Your task to perform on an android device: turn off priority inbox in the gmail app Image 0: 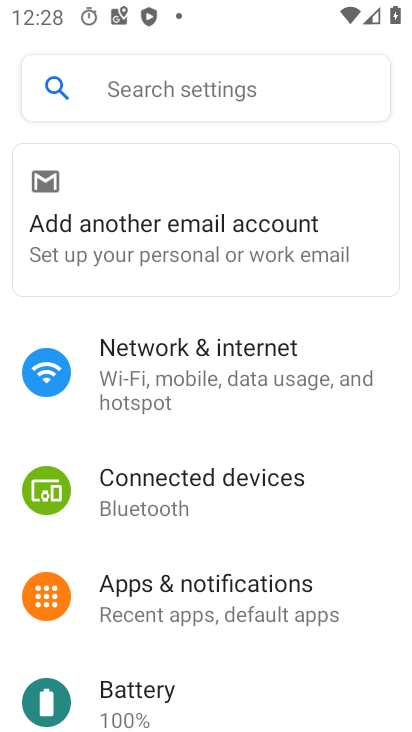
Step 0: press home button
Your task to perform on an android device: turn off priority inbox in the gmail app Image 1: 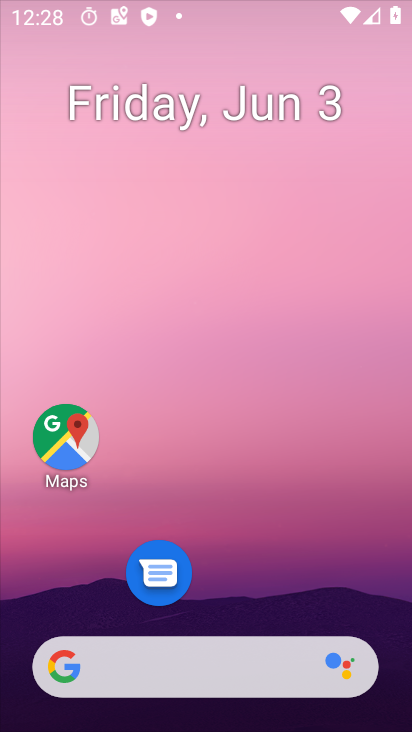
Step 1: drag from (295, 696) to (292, 93)
Your task to perform on an android device: turn off priority inbox in the gmail app Image 2: 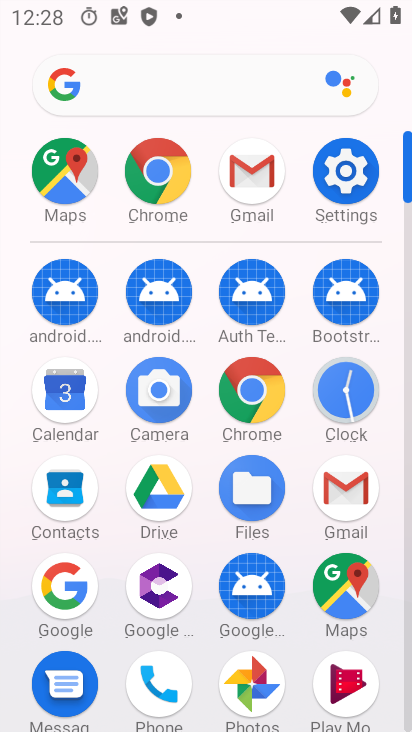
Step 2: click (369, 500)
Your task to perform on an android device: turn off priority inbox in the gmail app Image 3: 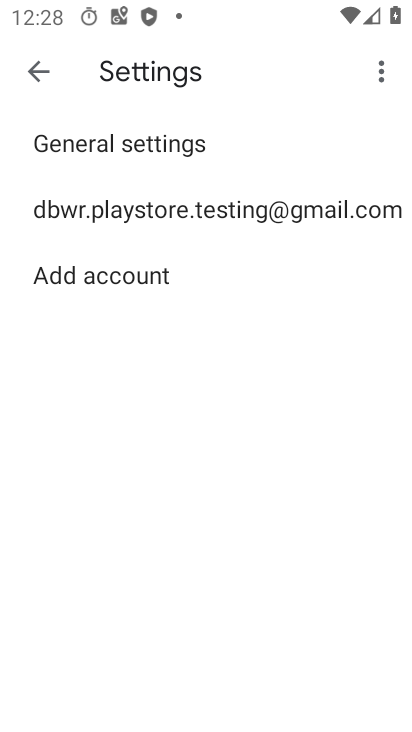
Step 3: press back button
Your task to perform on an android device: turn off priority inbox in the gmail app Image 4: 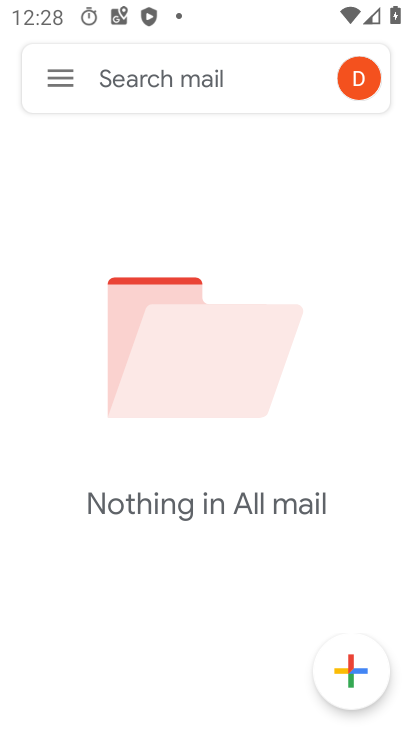
Step 4: click (86, 89)
Your task to perform on an android device: turn off priority inbox in the gmail app Image 5: 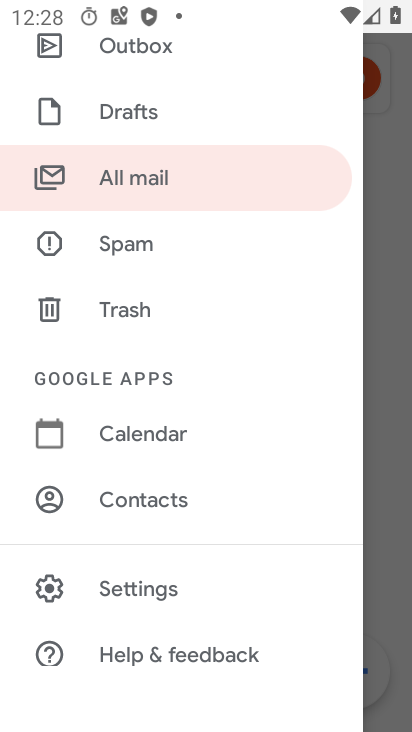
Step 5: click (178, 590)
Your task to perform on an android device: turn off priority inbox in the gmail app Image 6: 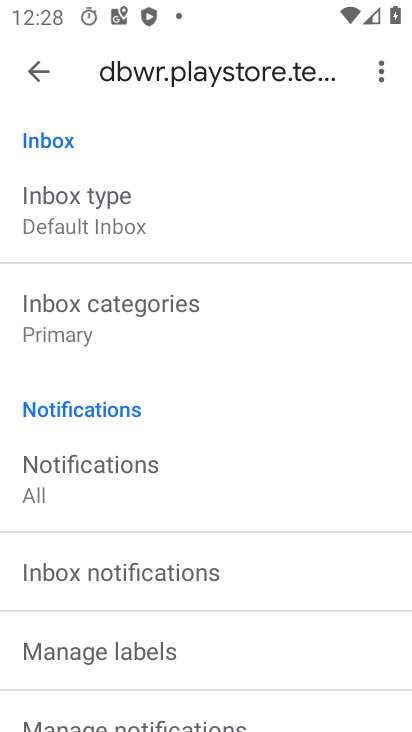
Step 6: click (109, 186)
Your task to perform on an android device: turn off priority inbox in the gmail app Image 7: 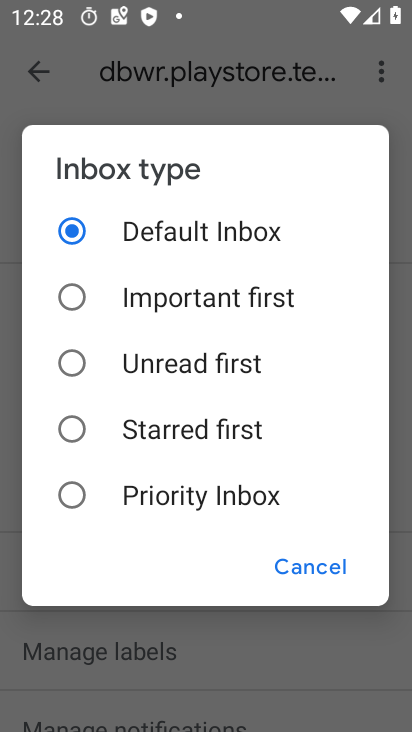
Step 7: task complete